Your task to perform on an android device: change text size in settings app Image 0: 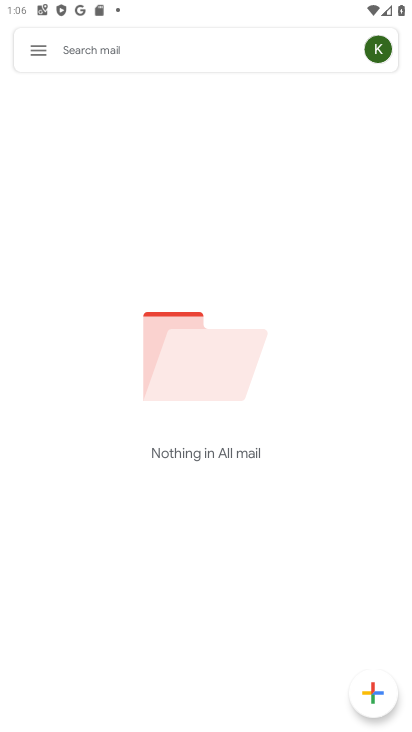
Step 0: press home button
Your task to perform on an android device: change text size in settings app Image 1: 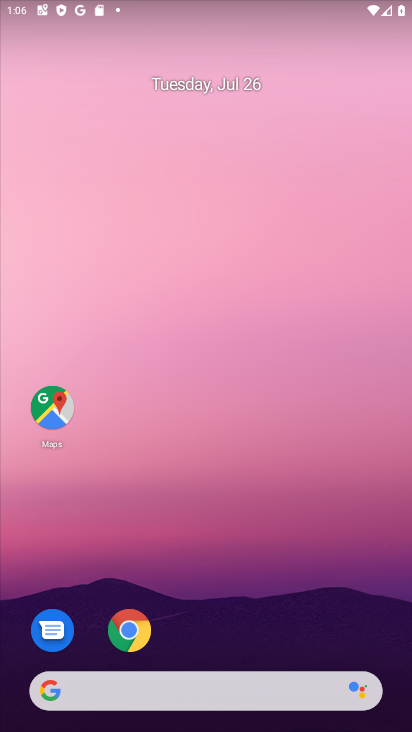
Step 1: drag from (194, 570) to (198, 201)
Your task to perform on an android device: change text size in settings app Image 2: 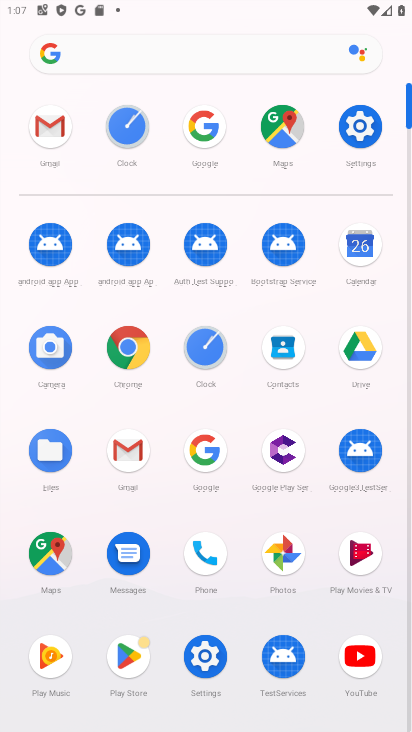
Step 2: click (354, 139)
Your task to perform on an android device: change text size in settings app Image 3: 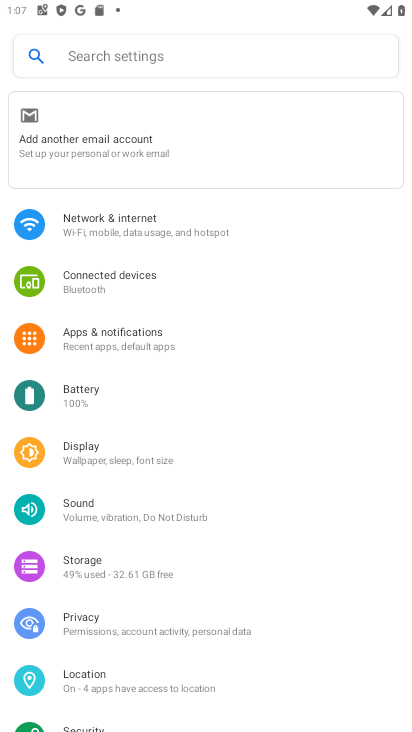
Step 3: click (59, 444)
Your task to perform on an android device: change text size in settings app Image 4: 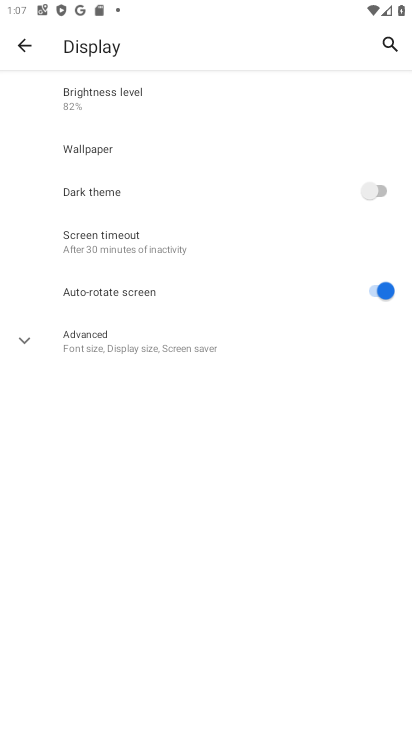
Step 4: click (111, 332)
Your task to perform on an android device: change text size in settings app Image 5: 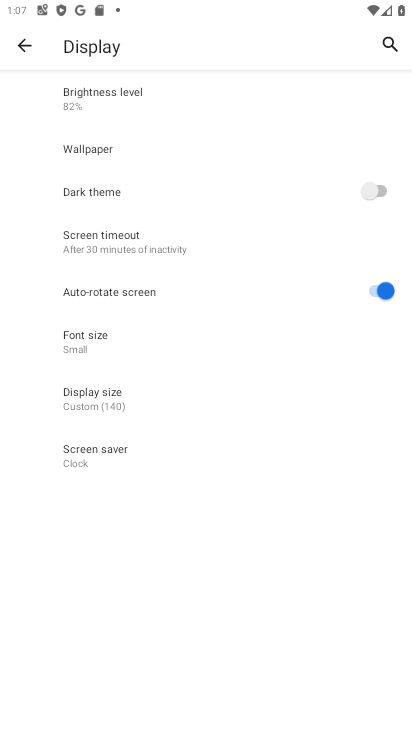
Step 5: click (88, 351)
Your task to perform on an android device: change text size in settings app Image 6: 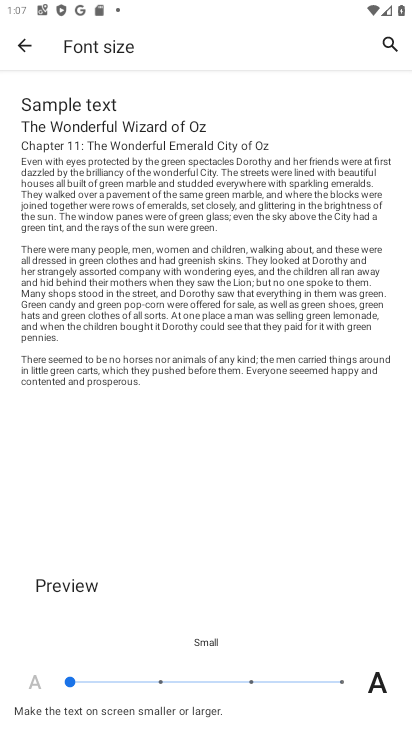
Step 6: click (155, 683)
Your task to perform on an android device: change text size in settings app Image 7: 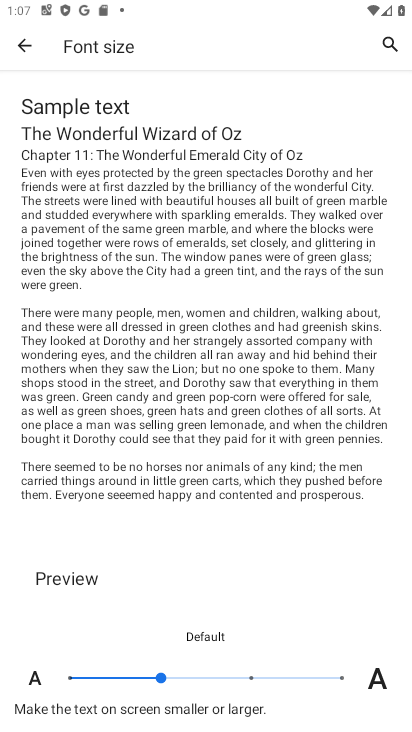
Step 7: task complete